Your task to perform on an android device: Open Google Chrome and open the bookmarks view Image 0: 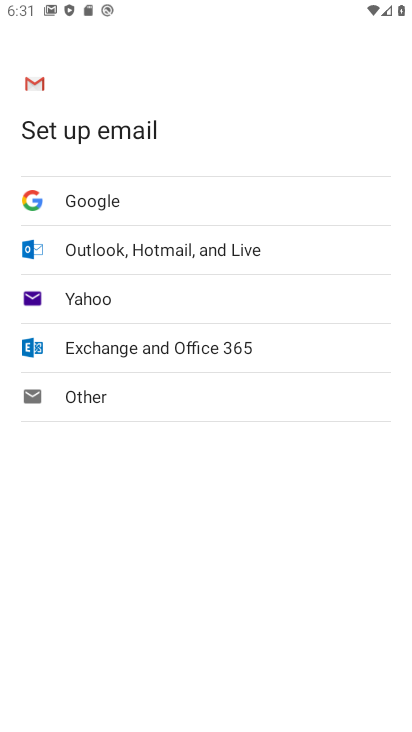
Step 0: press home button
Your task to perform on an android device: Open Google Chrome and open the bookmarks view Image 1: 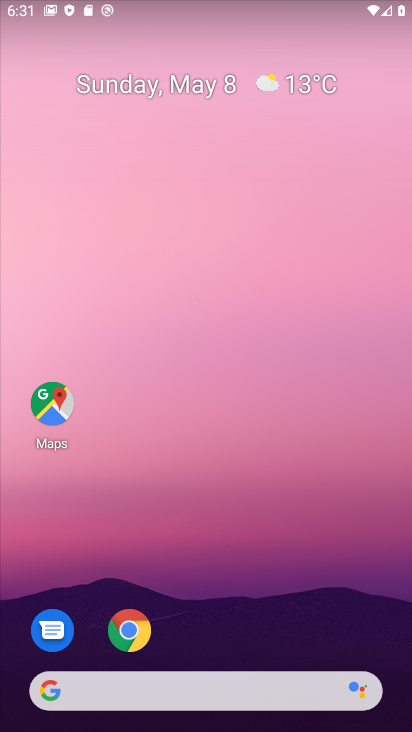
Step 1: click (131, 633)
Your task to perform on an android device: Open Google Chrome and open the bookmarks view Image 2: 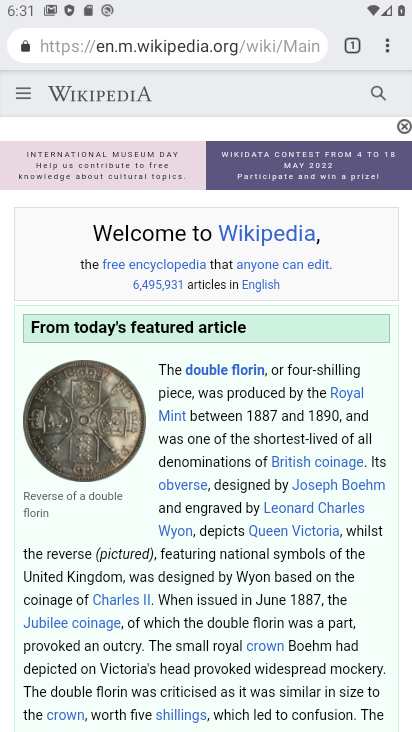
Step 2: click (386, 47)
Your task to perform on an android device: Open Google Chrome and open the bookmarks view Image 3: 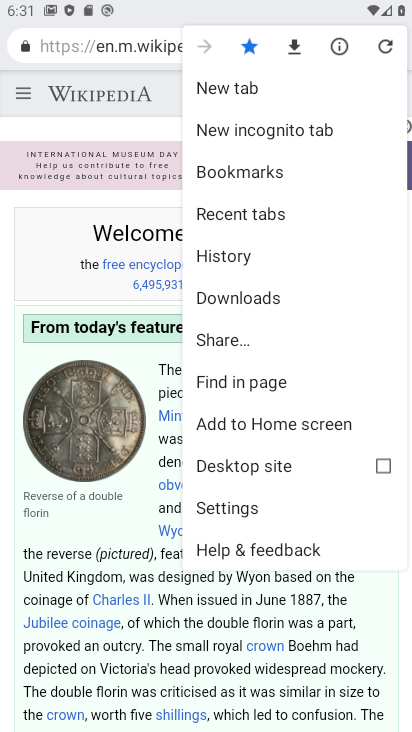
Step 3: click (258, 171)
Your task to perform on an android device: Open Google Chrome and open the bookmarks view Image 4: 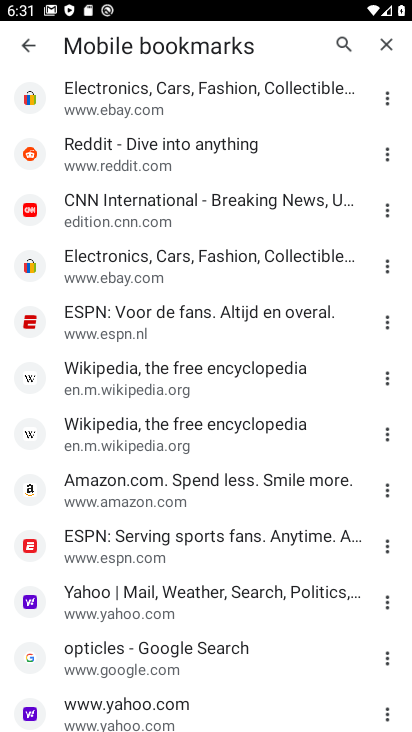
Step 4: click (390, 87)
Your task to perform on an android device: Open Google Chrome and open the bookmarks view Image 5: 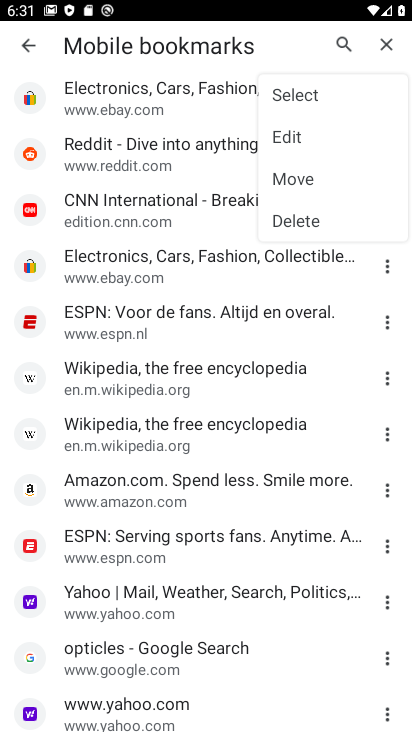
Step 5: click (293, 137)
Your task to perform on an android device: Open Google Chrome and open the bookmarks view Image 6: 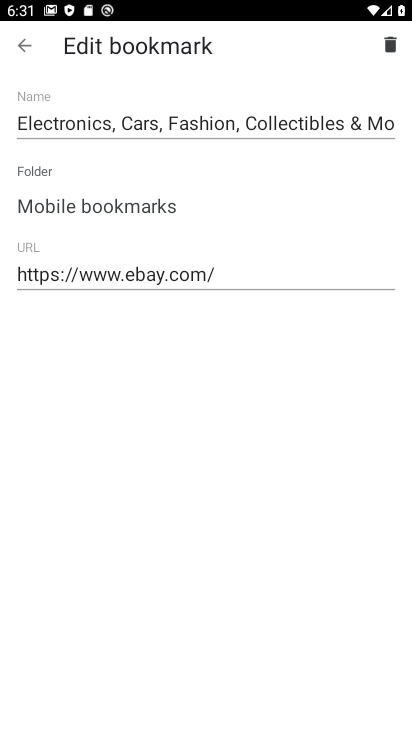
Step 6: task complete